Your task to perform on an android device: Search for seafood restaurants on Google Maps Image 0: 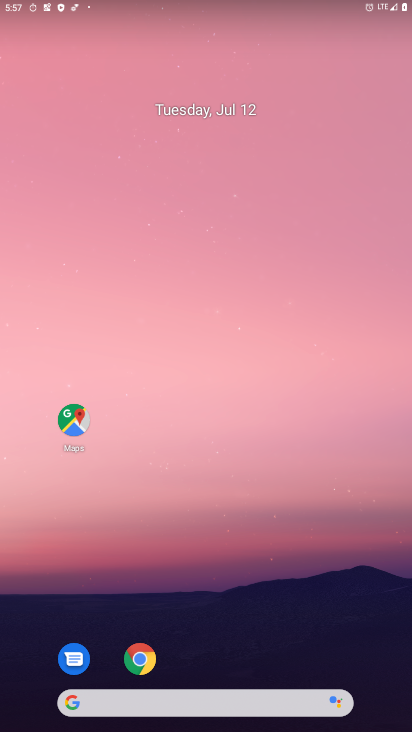
Step 0: drag from (206, 648) to (227, 231)
Your task to perform on an android device: Search for seafood restaurants on Google Maps Image 1: 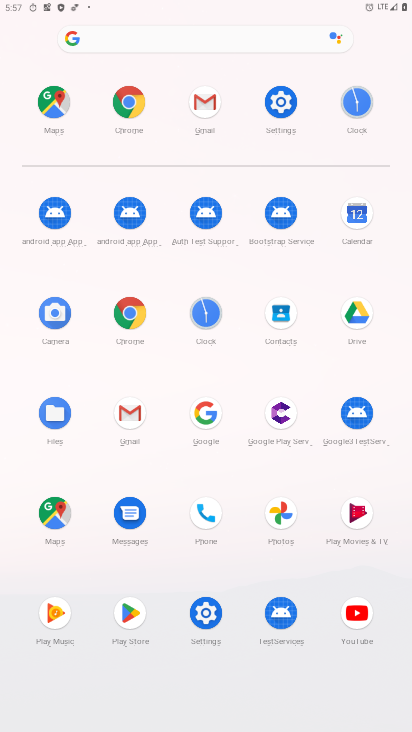
Step 1: click (60, 524)
Your task to perform on an android device: Search for seafood restaurants on Google Maps Image 2: 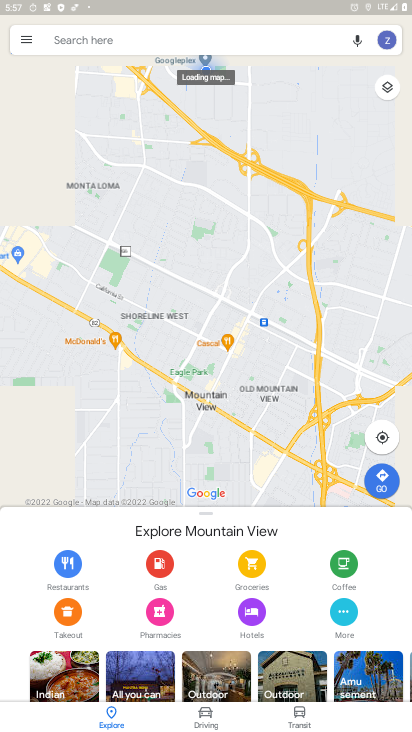
Step 2: press back button
Your task to perform on an android device: Search for seafood restaurants on Google Maps Image 3: 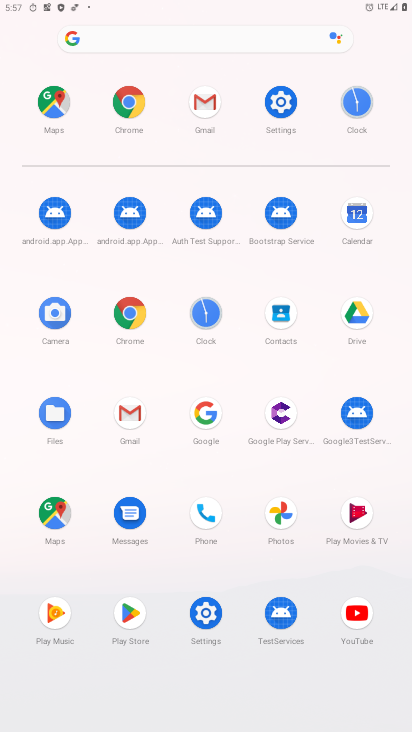
Step 3: click (40, 110)
Your task to perform on an android device: Search for seafood restaurants on Google Maps Image 4: 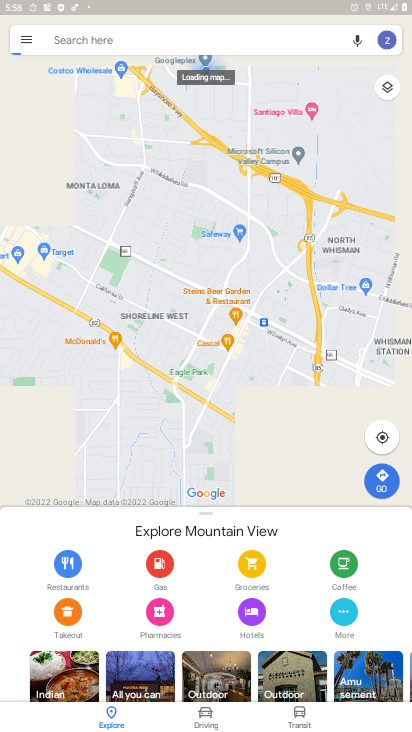
Step 4: click (192, 32)
Your task to perform on an android device: Search for seafood restaurants on Google Maps Image 5: 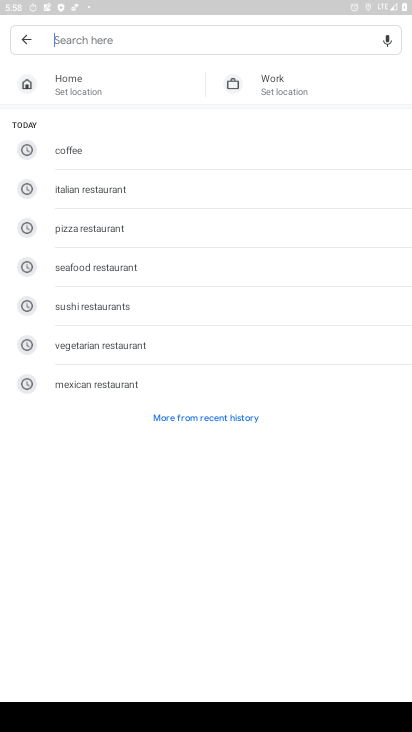
Step 5: click (149, 262)
Your task to perform on an android device: Search for seafood restaurants on Google Maps Image 6: 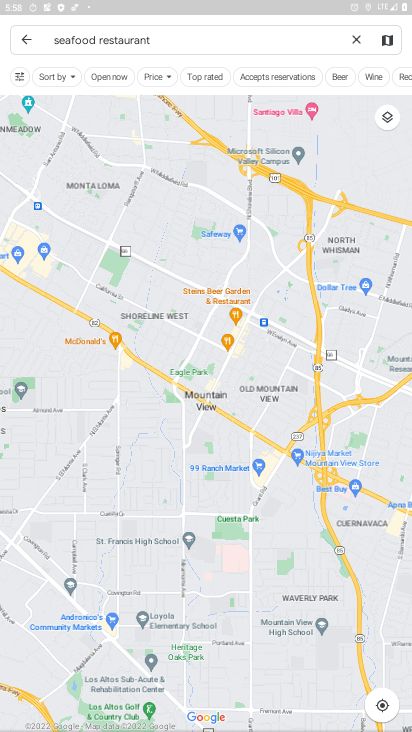
Step 6: task complete